Your task to perform on an android device: Go to network settings Image 0: 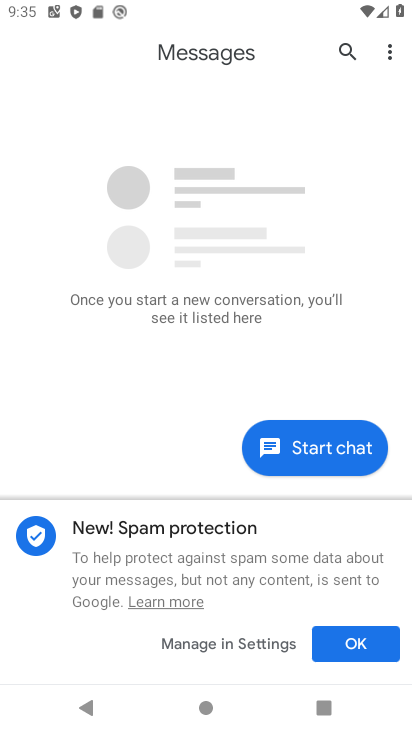
Step 0: press home button
Your task to perform on an android device: Go to network settings Image 1: 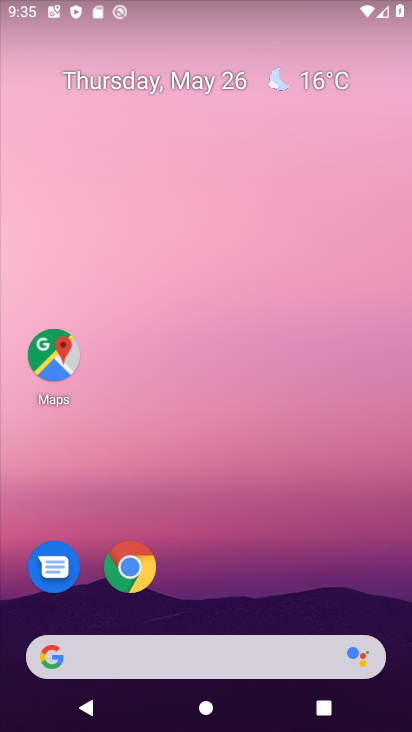
Step 1: drag from (386, 697) to (338, 175)
Your task to perform on an android device: Go to network settings Image 2: 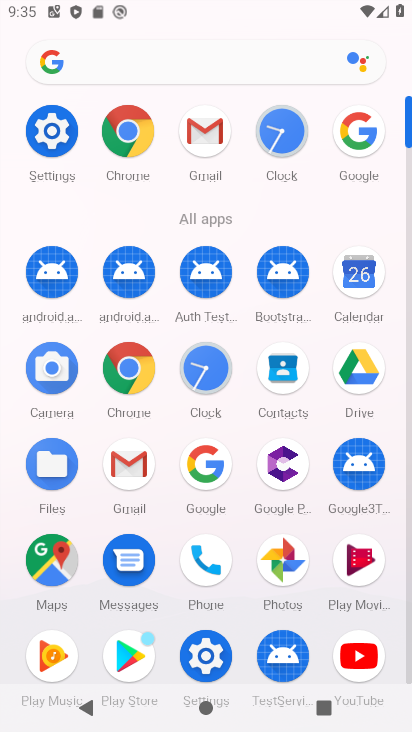
Step 2: click (49, 131)
Your task to perform on an android device: Go to network settings Image 3: 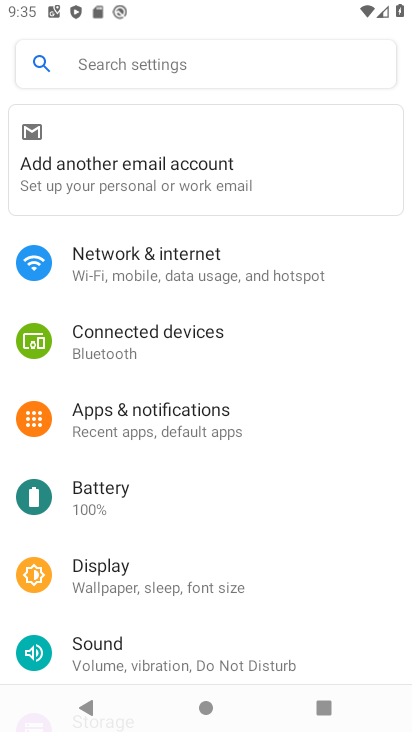
Step 3: click (116, 262)
Your task to perform on an android device: Go to network settings Image 4: 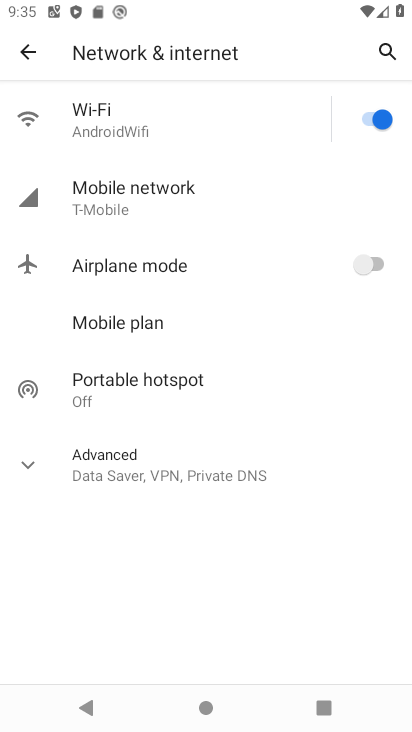
Step 4: click (116, 185)
Your task to perform on an android device: Go to network settings Image 5: 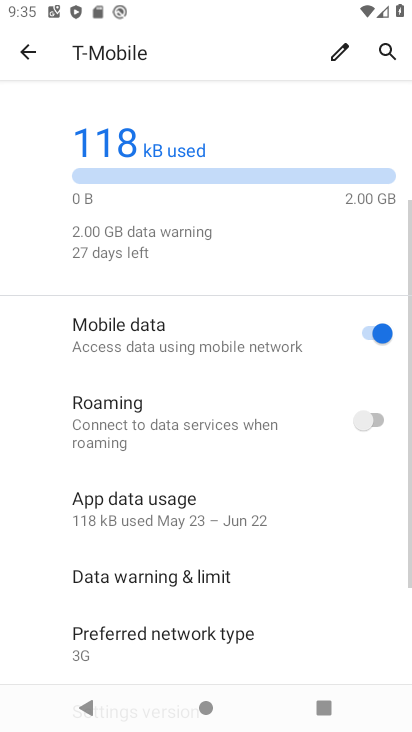
Step 5: task complete